Your task to perform on an android device: toggle notifications settings in the gmail app Image 0: 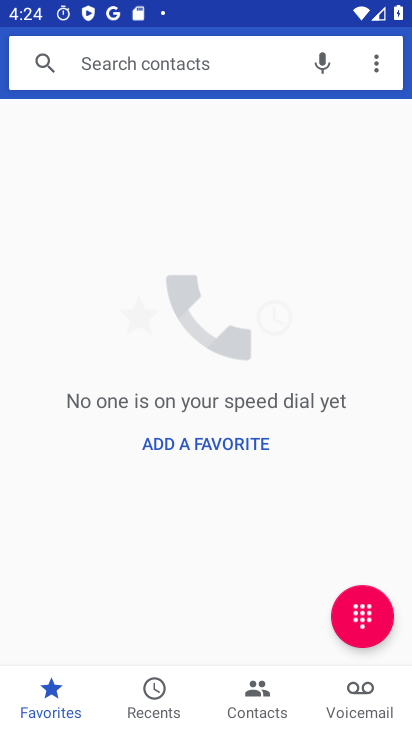
Step 0: press home button
Your task to perform on an android device: toggle notifications settings in the gmail app Image 1: 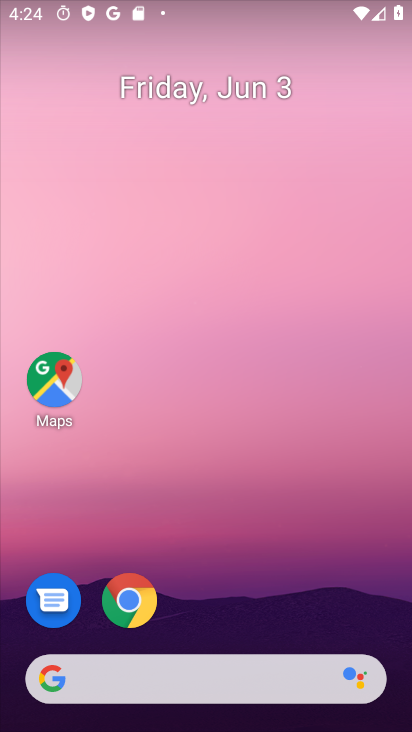
Step 1: drag from (402, 694) to (381, 171)
Your task to perform on an android device: toggle notifications settings in the gmail app Image 2: 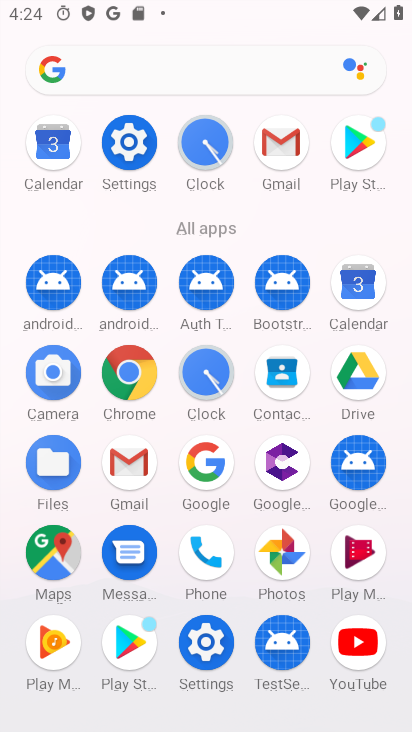
Step 2: click (136, 465)
Your task to perform on an android device: toggle notifications settings in the gmail app Image 3: 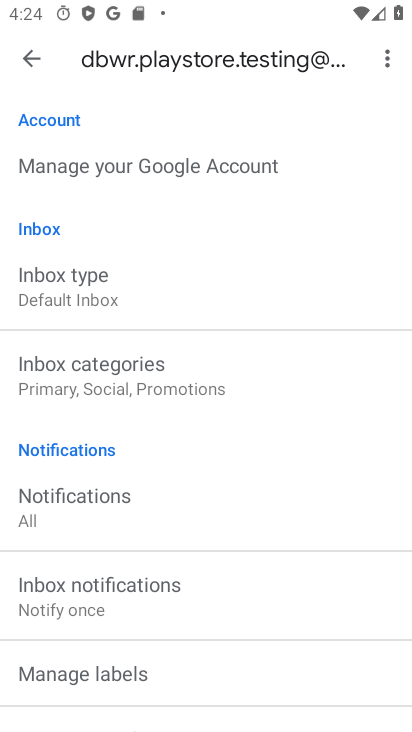
Step 3: click (19, 61)
Your task to perform on an android device: toggle notifications settings in the gmail app Image 4: 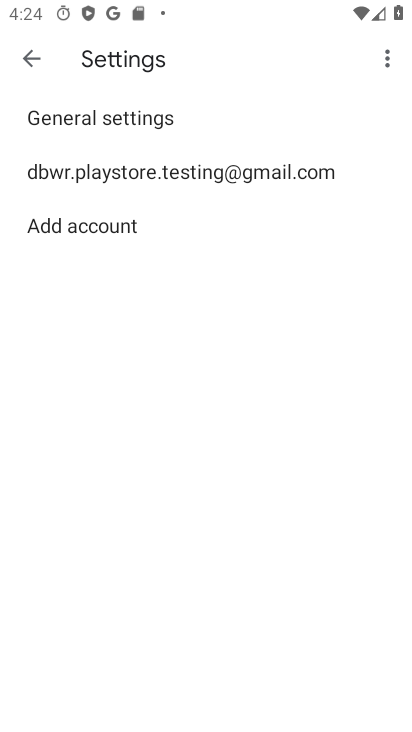
Step 4: click (36, 113)
Your task to perform on an android device: toggle notifications settings in the gmail app Image 5: 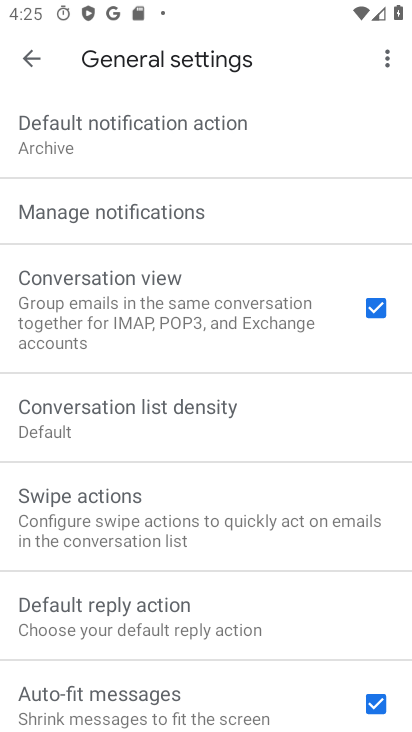
Step 5: click (153, 209)
Your task to perform on an android device: toggle notifications settings in the gmail app Image 6: 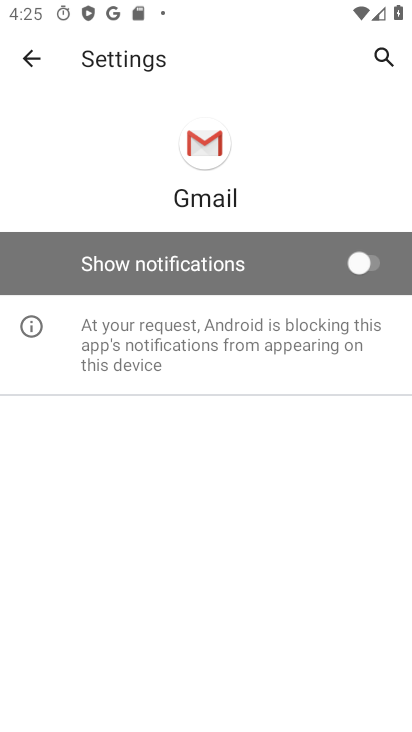
Step 6: click (375, 263)
Your task to perform on an android device: toggle notifications settings in the gmail app Image 7: 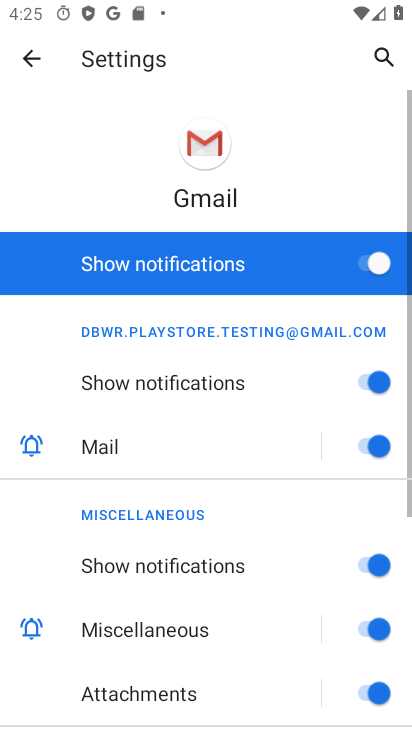
Step 7: task complete